Your task to perform on an android device: Open Reddit.com Image 0: 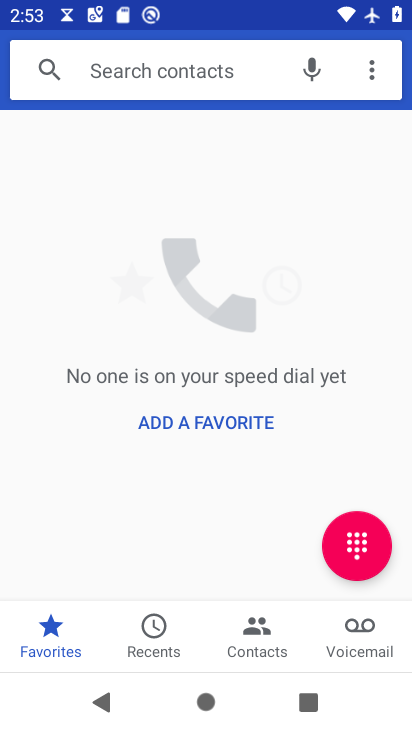
Step 0: press home button
Your task to perform on an android device: Open Reddit.com Image 1: 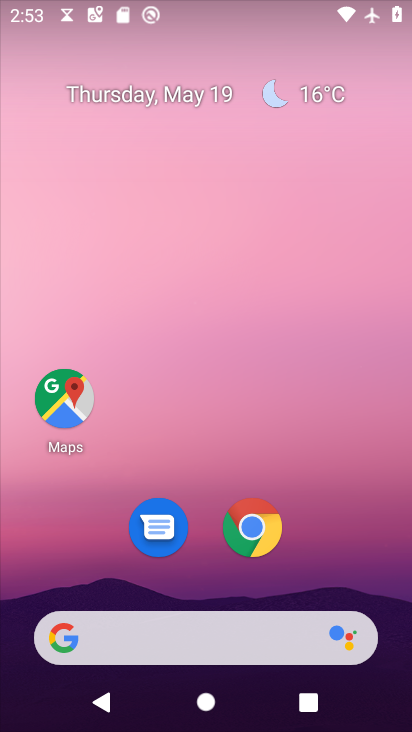
Step 1: click (251, 520)
Your task to perform on an android device: Open Reddit.com Image 2: 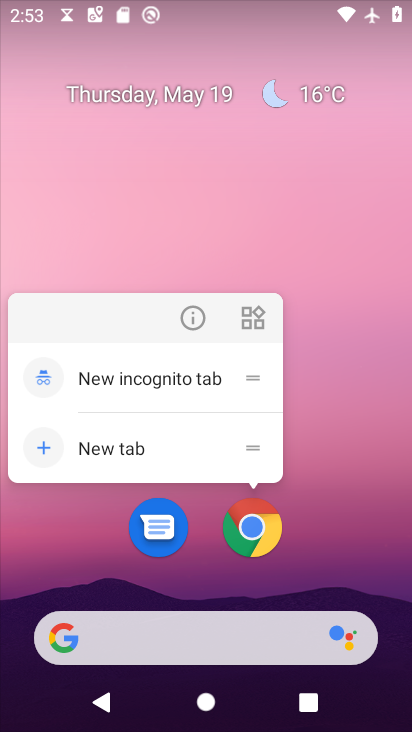
Step 2: click (256, 542)
Your task to perform on an android device: Open Reddit.com Image 3: 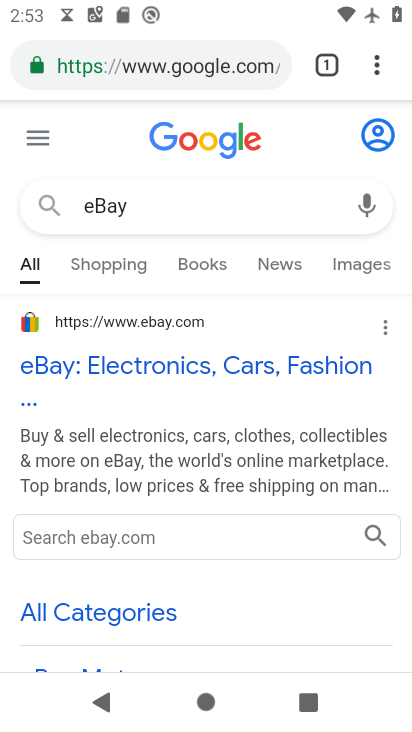
Step 3: click (188, 214)
Your task to perform on an android device: Open Reddit.com Image 4: 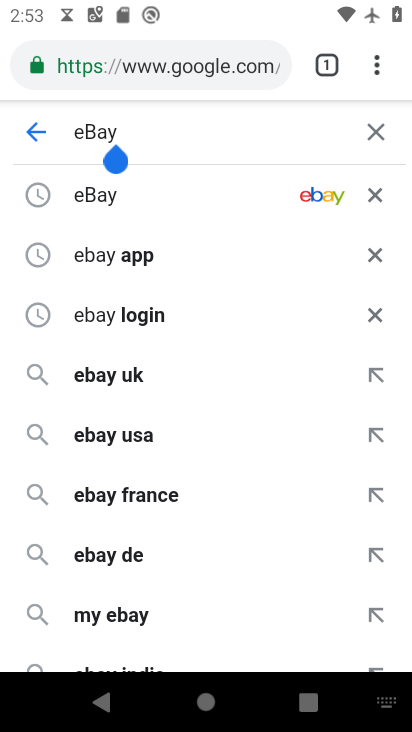
Step 4: click (371, 130)
Your task to perform on an android device: Open Reddit.com Image 5: 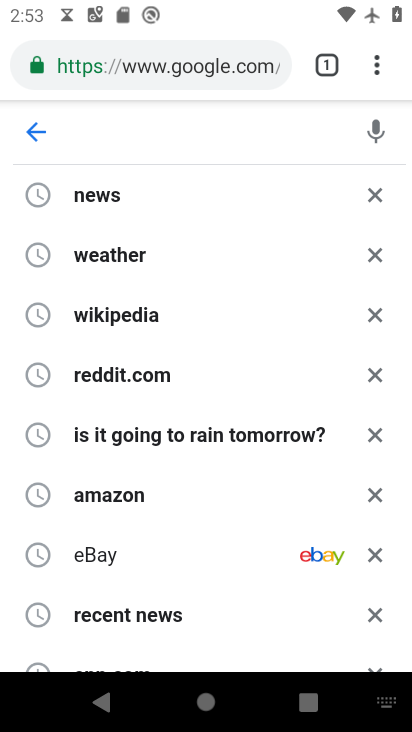
Step 5: click (176, 387)
Your task to perform on an android device: Open Reddit.com Image 6: 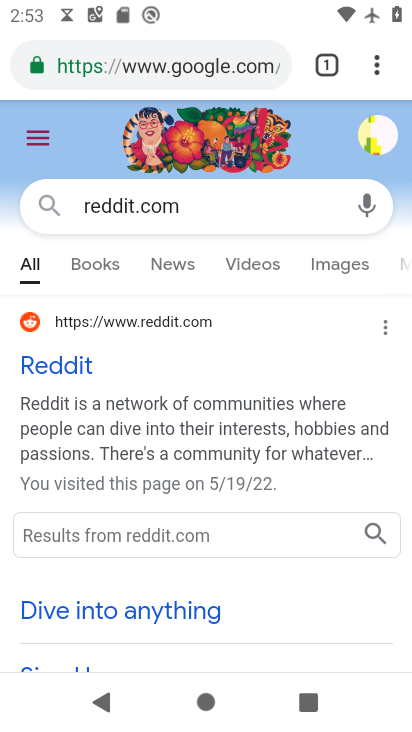
Step 6: click (49, 365)
Your task to perform on an android device: Open Reddit.com Image 7: 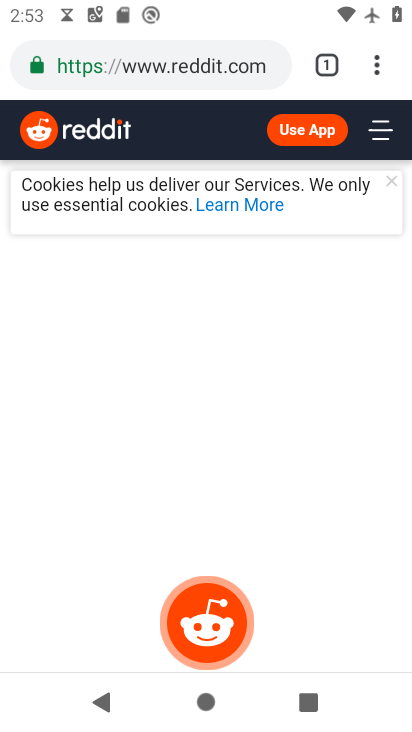
Step 7: task complete